Your task to perform on an android device: open chrome privacy settings Image 0: 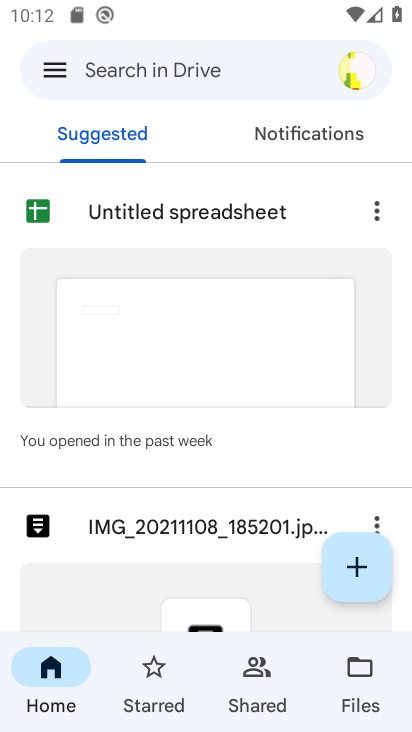
Step 0: press home button
Your task to perform on an android device: open chrome privacy settings Image 1: 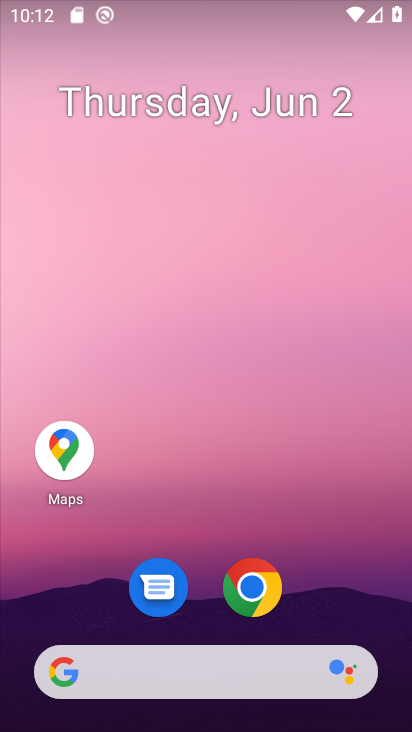
Step 1: click (273, 601)
Your task to perform on an android device: open chrome privacy settings Image 2: 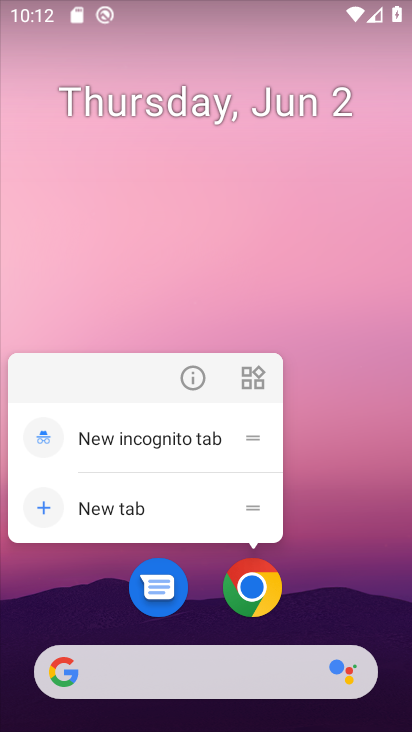
Step 2: click (260, 592)
Your task to perform on an android device: open chrome privacy settings Image 3: 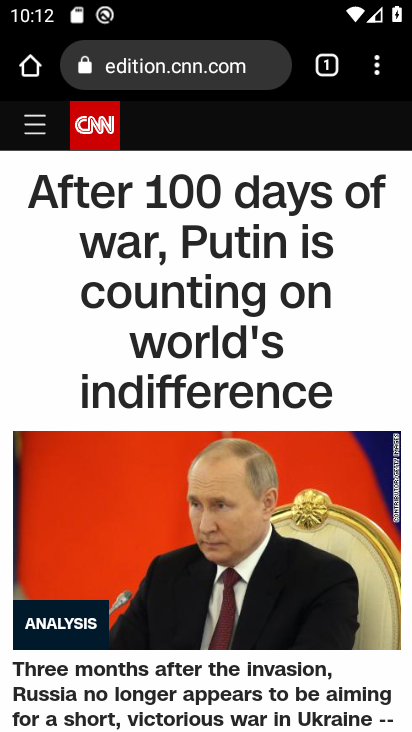
Step 3: click (375, 59)
Your task to perform on an android device: open chrome privacy settings Image 4: 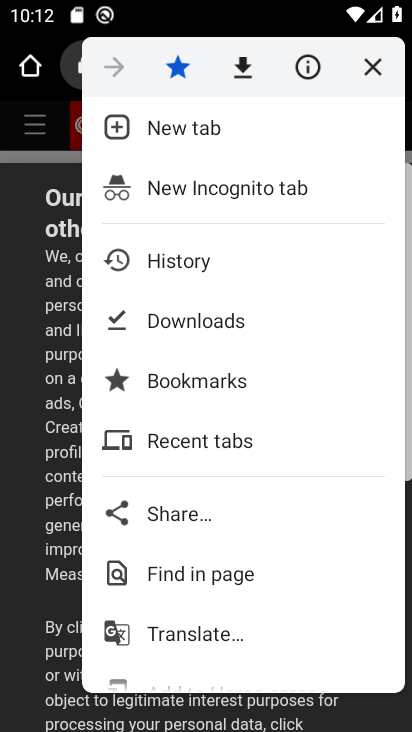
Step 4: drag from (234, 654) to (249, 182)
Your task to perform on an android device: open chrome privacy settings Image 5: 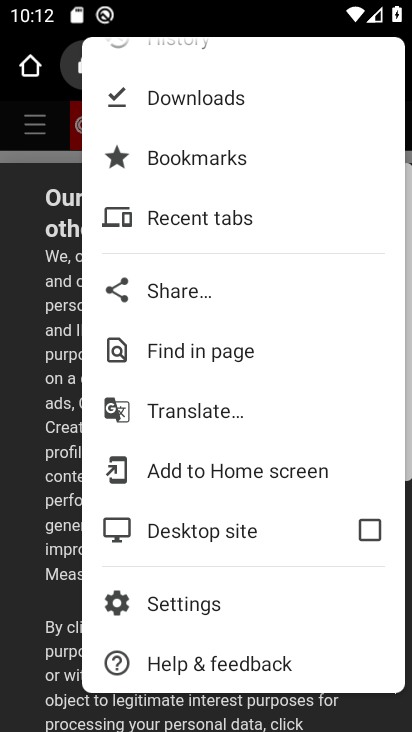
Step 5: click (205, 595)
Your task to perform on an android device: open chrome privacy settings Image 6: 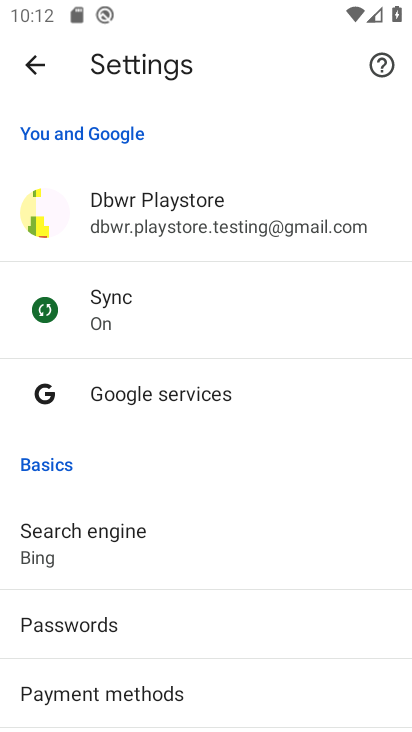
Step 6: drag from (213, 633) to (226, 245)
Your task to perform on an android device: open chrome privacy settings Image 7: 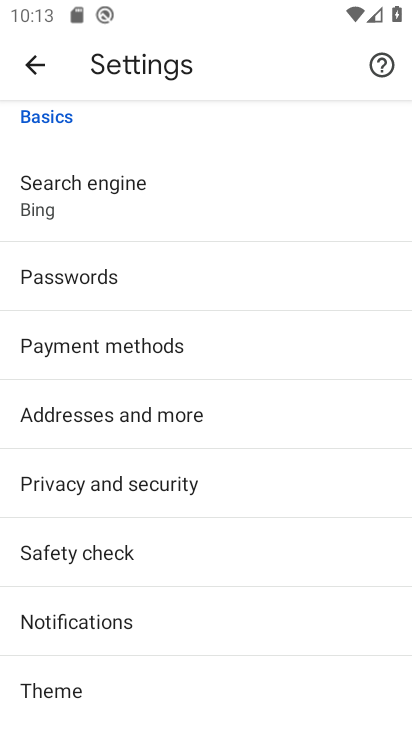
Step 7: drag from (145, 665) to (146, 316)
Your task to perform on an android device: open chrome privacy settings Image 8: 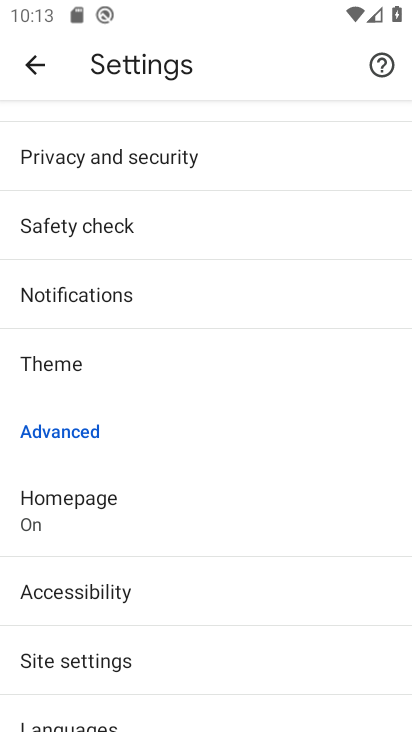
Step 8: drag from (134, 622) to (100, 670)
Your task to perform on an android device: open chrome privacy settings Image 9: 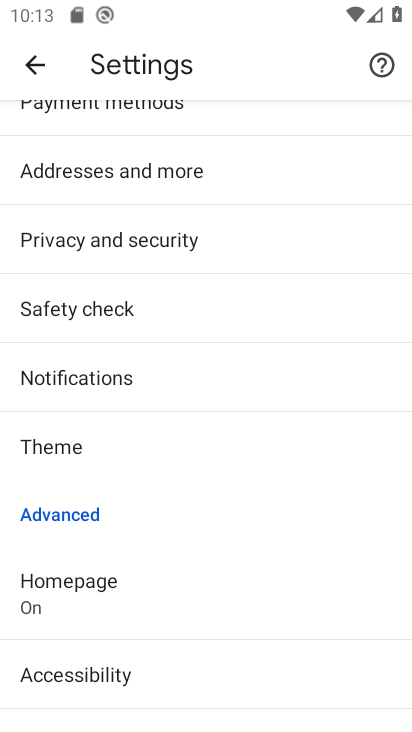
Step 9: click (127, 243)
Your task to perform on an android device: open chrome privacy settings Image 10: 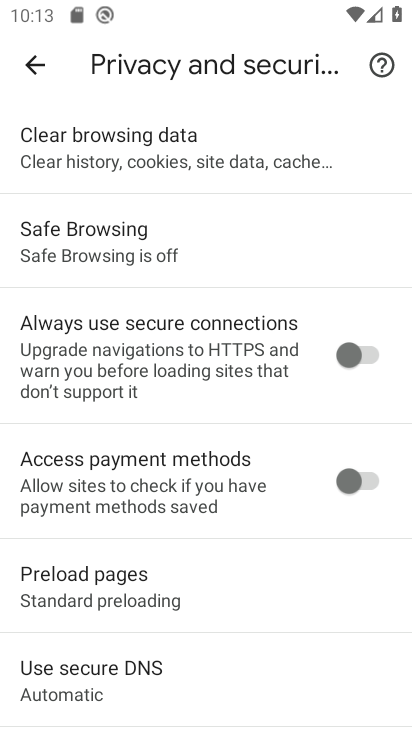
Step 10: task complete